Your task to perform on an android device: See recent photos Image 0: 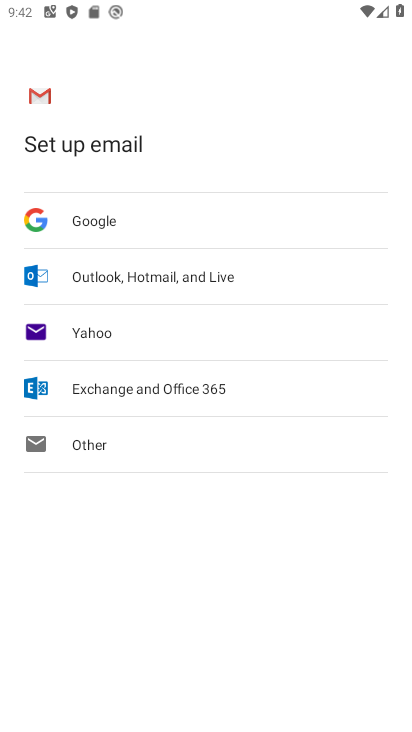
Step 0: press home button
Your task to perform on an android device: See recent photos Image 1: 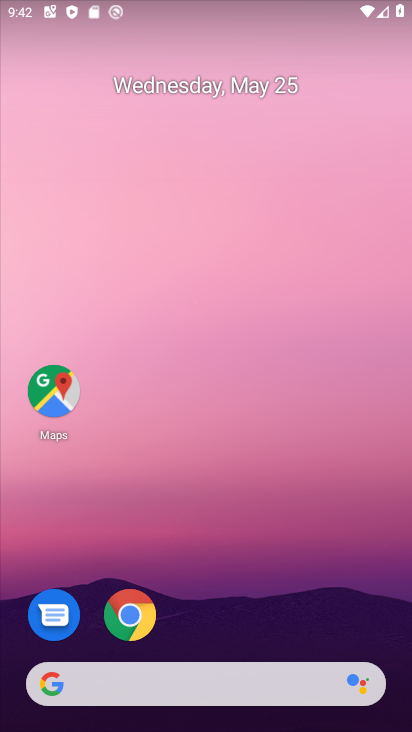
Step 1: drag from (233, 530) to (216, 41)
Your task to perform on an android device: See recent photos Image 2: 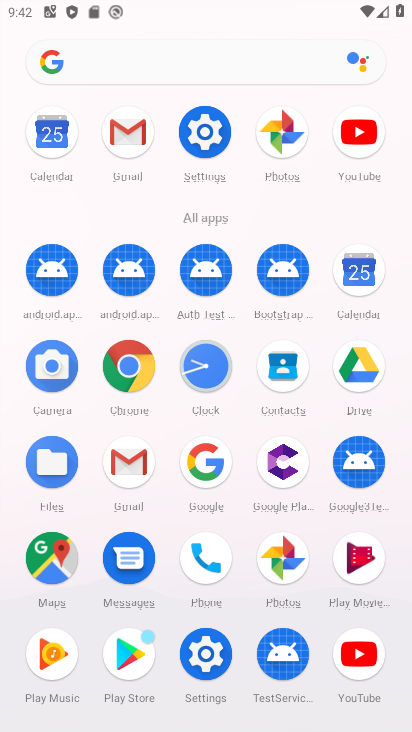
Step 2: click (280, 127)
Your task to perform on an android device: See recent photos Image 3: 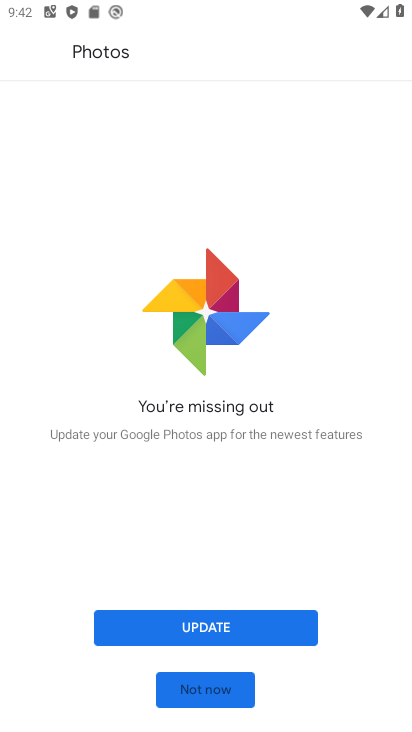
Step 3: click (226, 682)
Your task to perform on an android device: See recent photos Image 4: 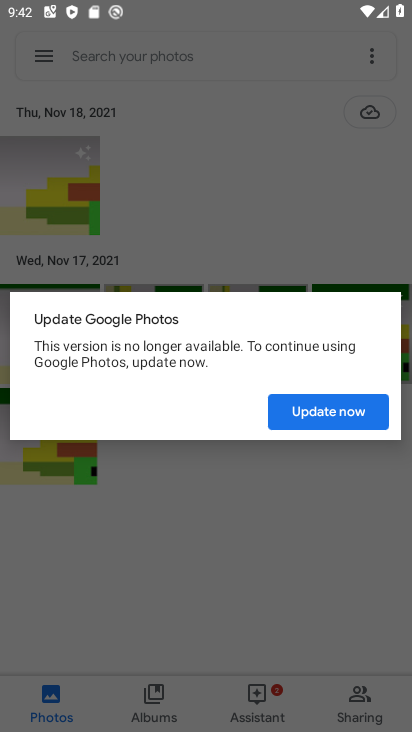
Step 4: click (366, 406)
Your task to perform on an android device: See recent photos Image 5: 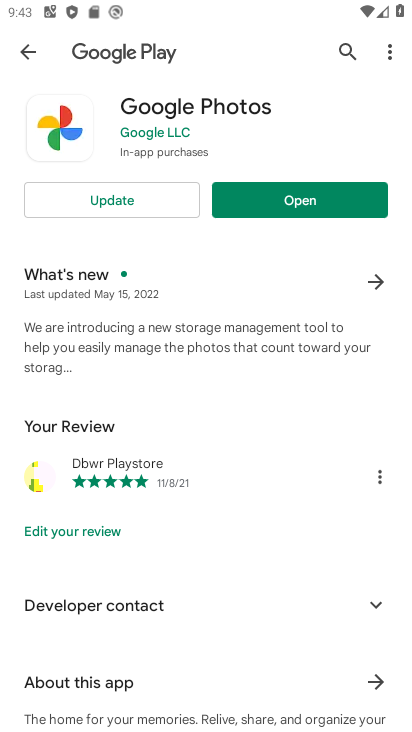
Step 5: click (343, 186)
Your task to perform on an android device: See recent photos Image 6: 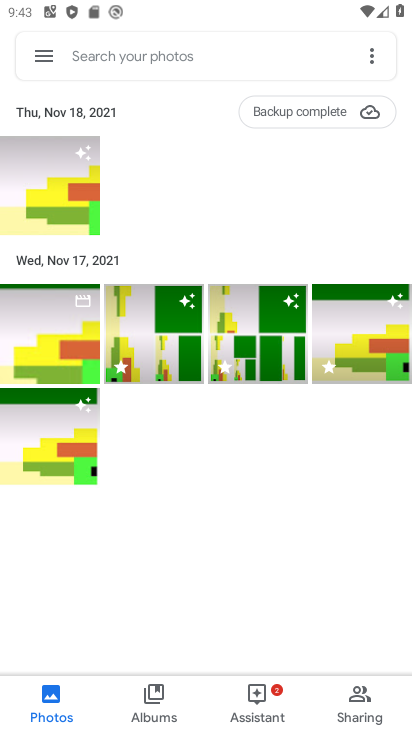
Step 6: click (62, 702)
Your task to perform on an android device: See recent photos Image 7: 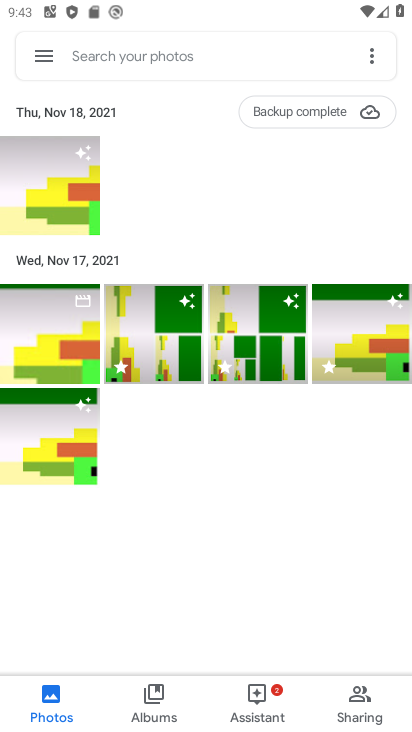
Step 7: task complete